Your task to perform on an android device: Open settings Image 0: 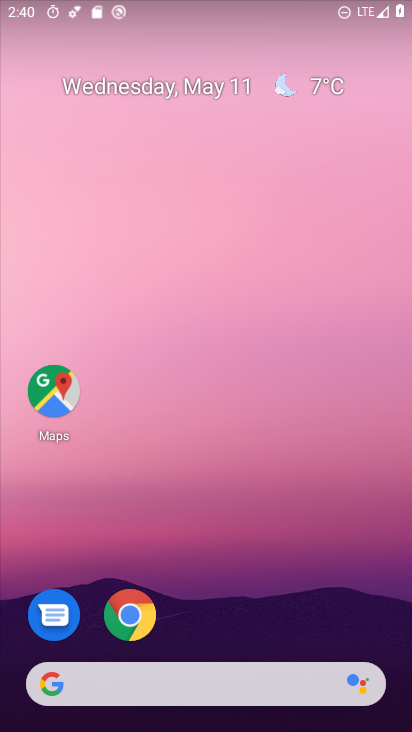
Step 0: drag from (206, 671) to (217, 162)
Your task to perform on an android device: Open settings Image 1: 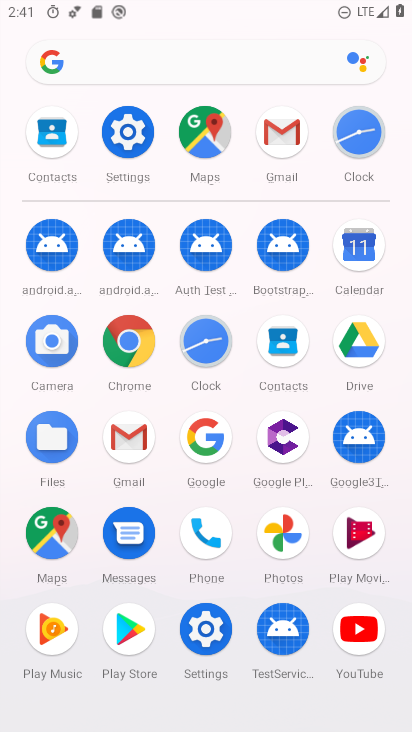
Step 1: click (204, 625)
Your task to perform on an android device: Open settings Image 2: 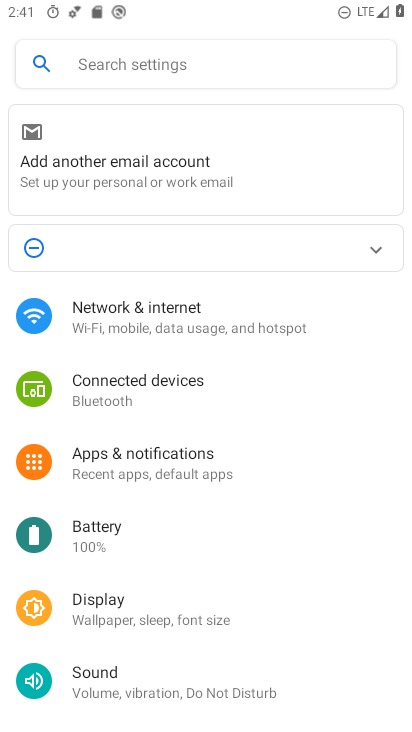
Step 2: task complete